Your task to perform on an android device: turn on javascript in the chrome app Image 0: 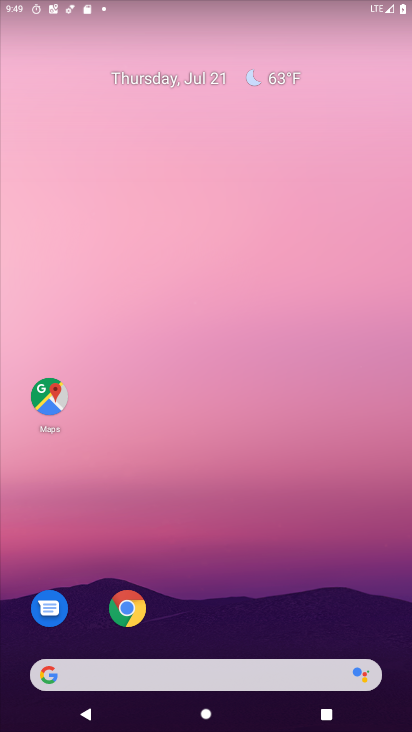
Step 0: drag from (172, 630) to (266, 13)
Your task to perform on an android device: turn on javascript in the chrome app Image 1: 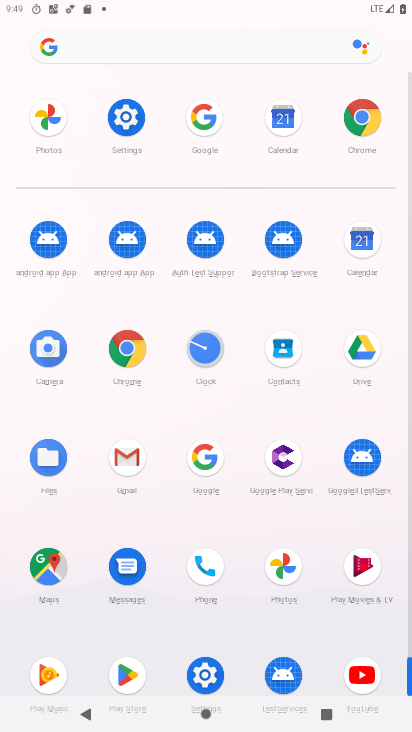
Step 1: click (133, 355)
Your task to perform on an android device: turn on javascript in the chrome app Image 2: 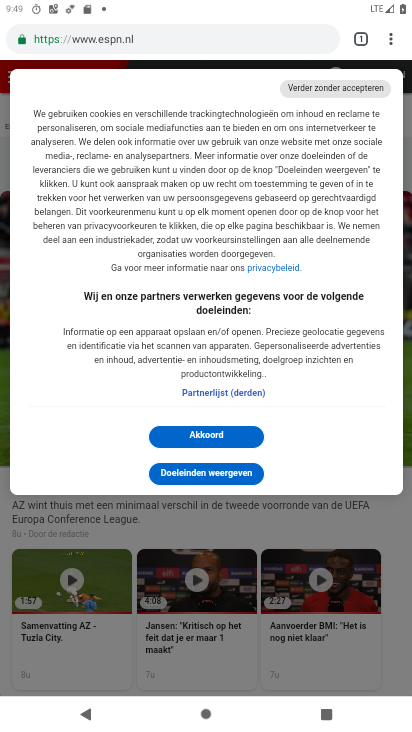
Step 2: click (396, 51)
Your task to perform on an android device: turn on javascript in the chrome app Image 3: 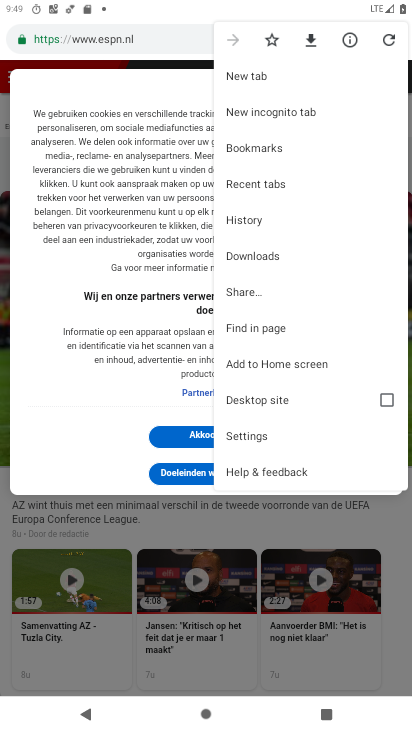
Step 3: click (251, 435)
Your task to perform on an android device: turn on javascript in the chrome app Image 4: 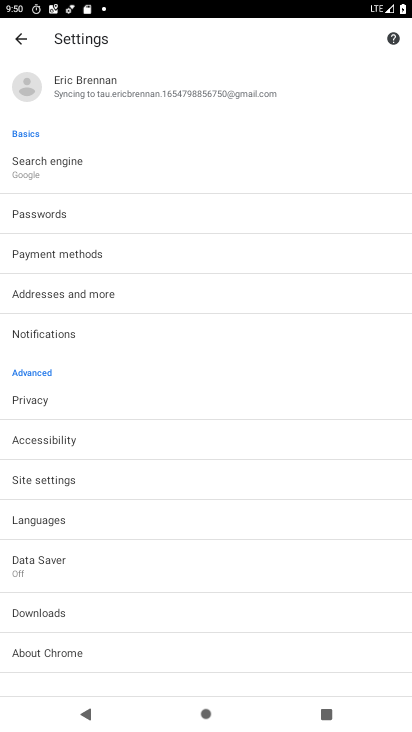
Step 4: click (36, 484)
Your task to perform on an android device: turn on javascript in the chrome app Image 5: 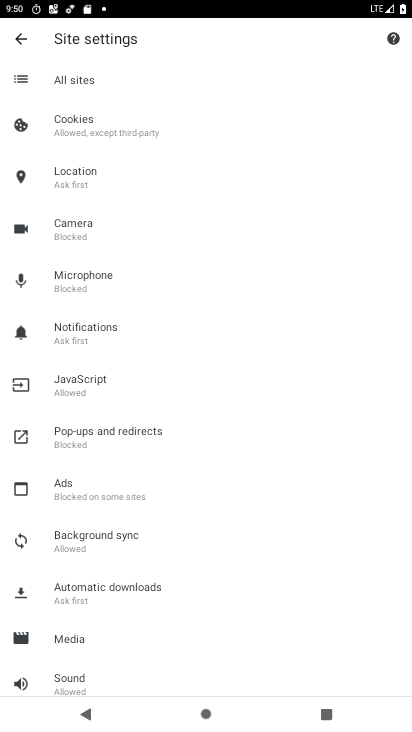
Step 5: click (83, 395)
Your task to perform on an android device: turn on javascript in the chrome app Image 6: 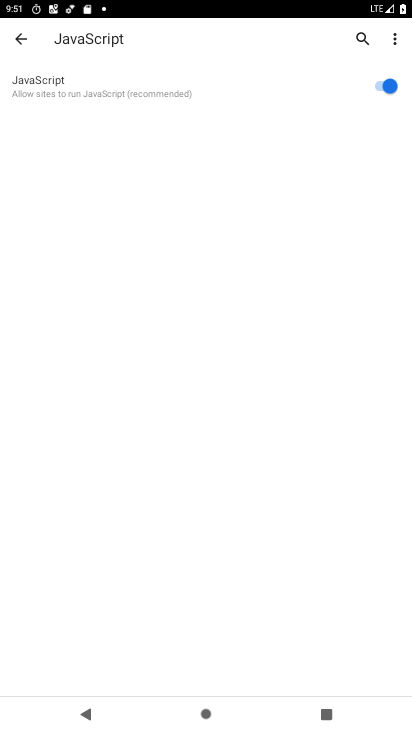
Step 6: task complete